Your task to perform on an android device: Is it going to rain this weekend? Image 0: 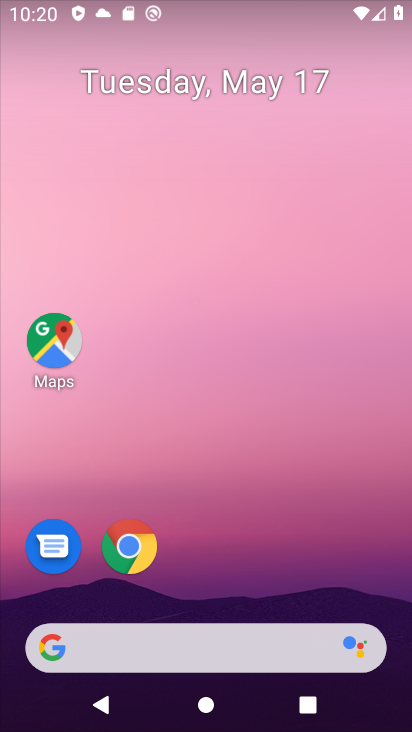
Step 0: drag from (261, 558) to (300, 268)
Your task to perform on an android device: Is it going to rain this weekend? Image 1: 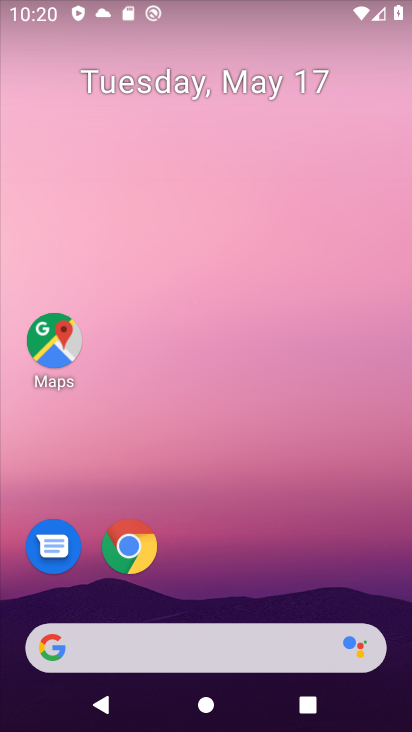
Step 1: drag from (261, 597) to (250, 224)
Your task to perform on an android device: Is it going to rain this weekend? Image 2: 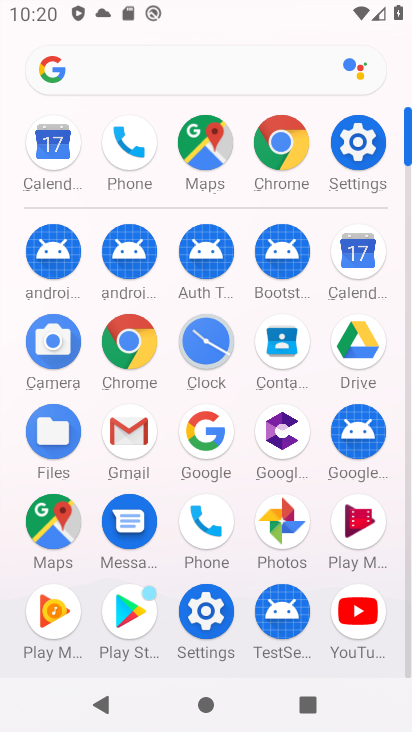
Step 2: click (137, 340)
Your task to perform on an android device: Is it going to rain this weekend? Image 3: 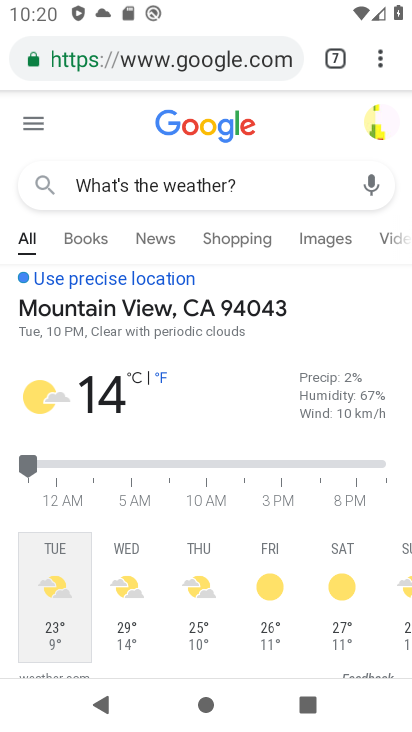
Step 3: click (235, 180)
Your task to perform on an android device: Is it going to rain this weekend? Image 4: 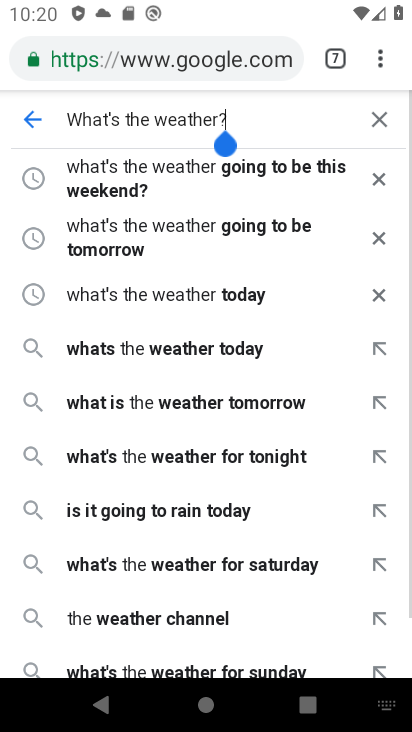
Step 4: click (334, 57)
Your task to perform on an android device: Is it going to rain this weekend? Image 5: 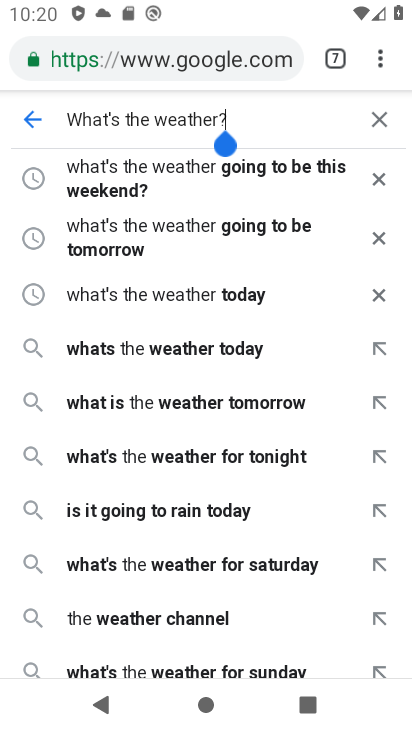
Step 5: click (335, 61)
Your task to perform on an android device: Is it going to rain this weekend? Image 6: 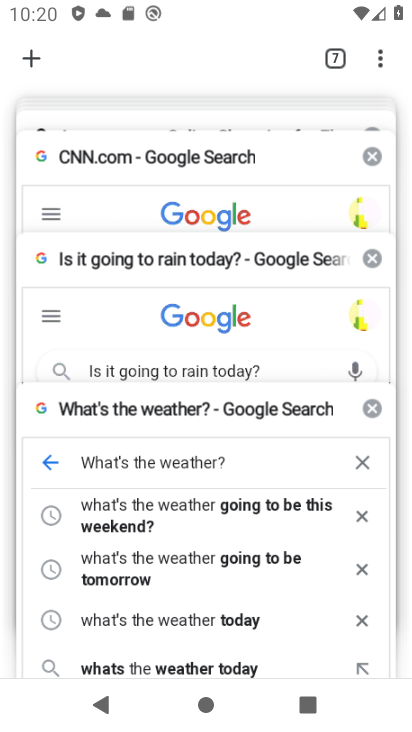
Step 6: click (231, 282)
Your task to perform on an android device: Is it going to rain this weekend? Image 7: 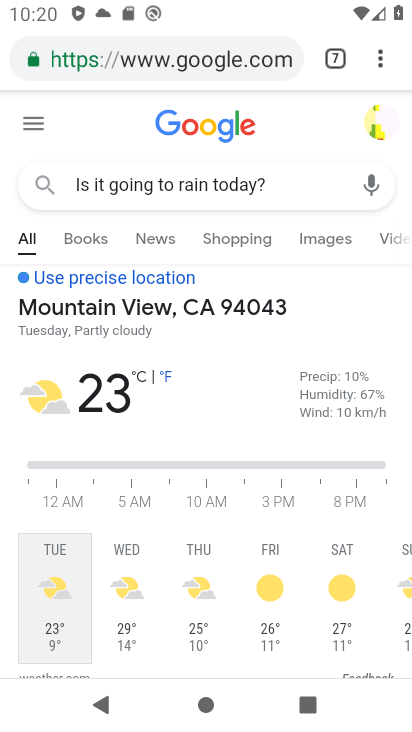
Step 7: click (298, 182)
Your task to perform on an android device: Is it going to rain this weekend? Image 8: 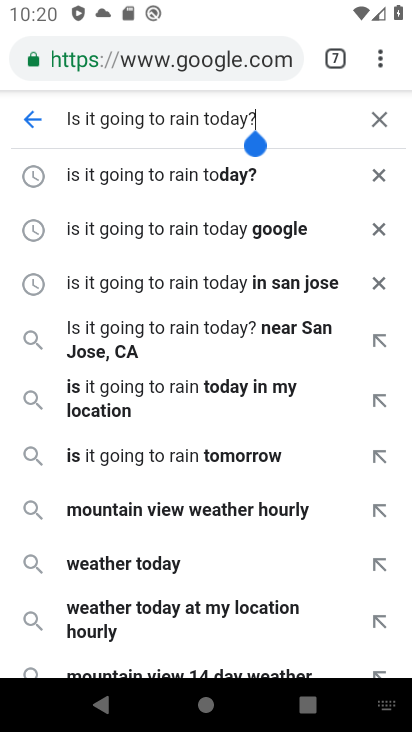
Step 8: click (391, 120)
Your task to perform on an android device: Is it going to rain this weekend? Image 9: 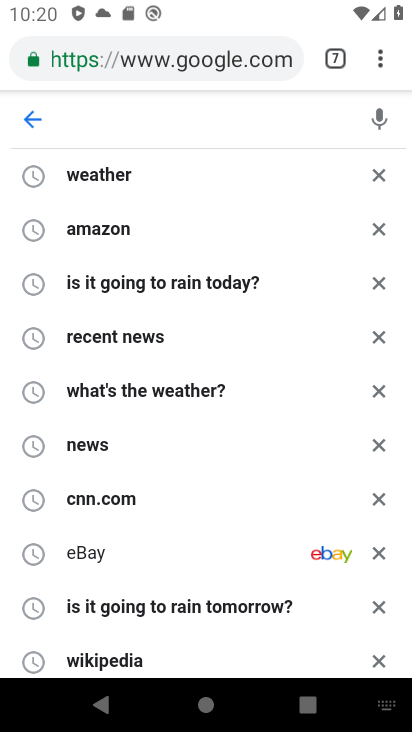
Step 9: click (290, 115)
Your task to perform on an android device: Is it going to rain this weekend? Image 10: 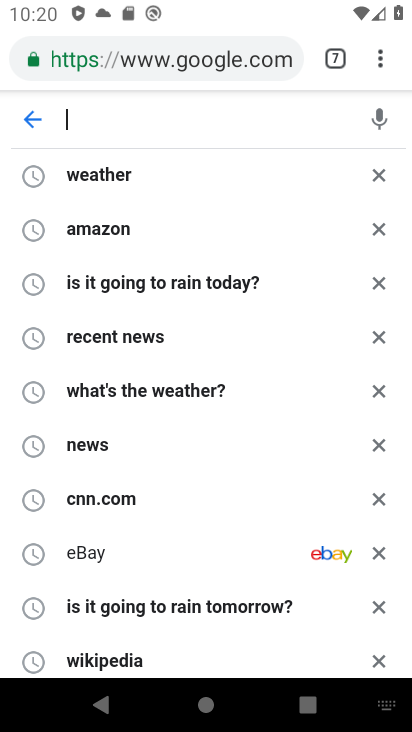
Step 10: type "Is it going to rain this weekend?"
Your task to perform on an android device: Is it going to rain this weekend? Image 11: 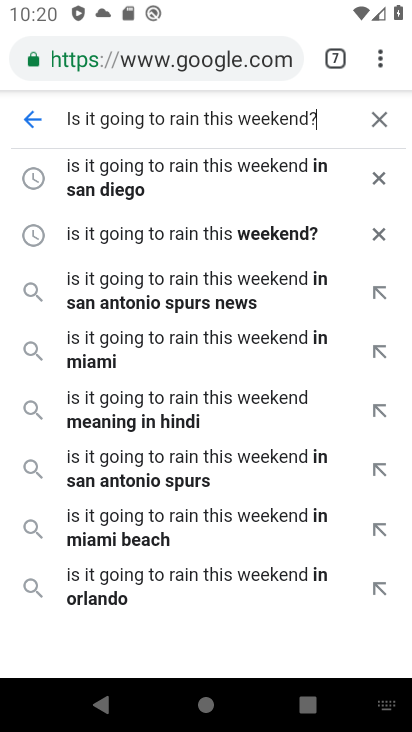
Step 11: click (169, 169)
Your task to perform on an android device: Is it going to rain this weekend? Image 12: 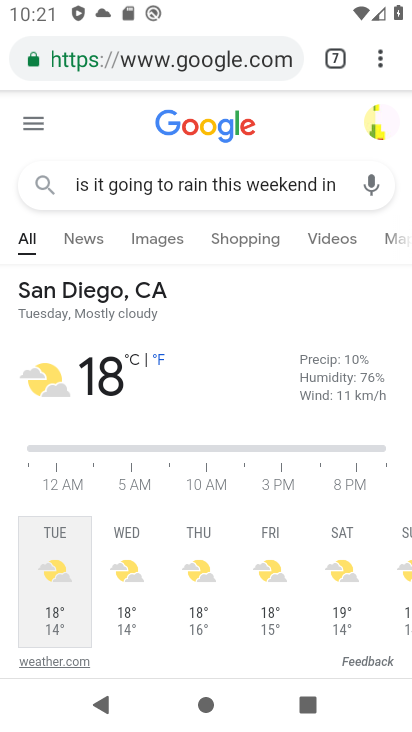
Step 12: task complete